Your task to perform on an android device: Open location settings Image 0: 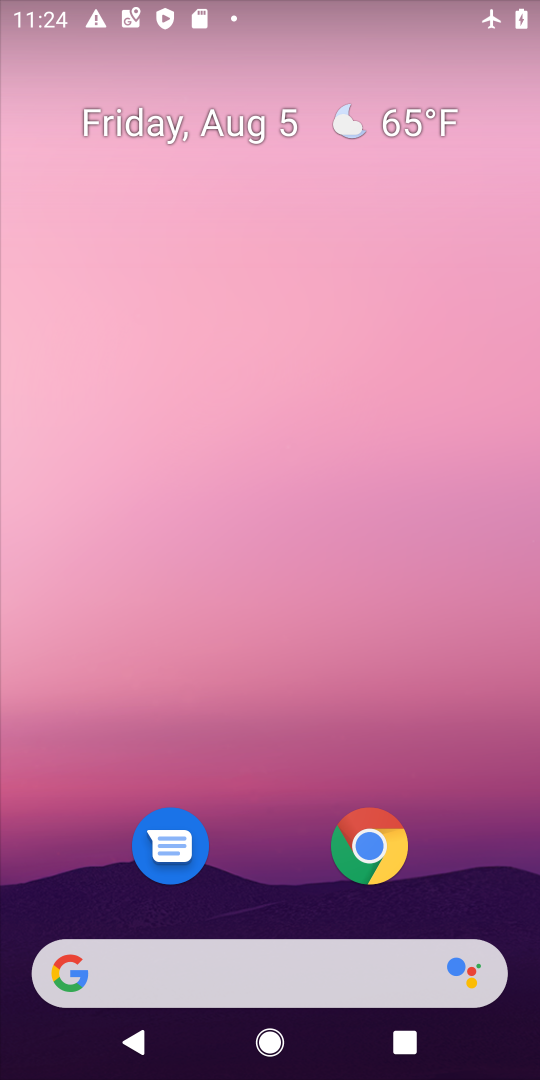
Step 0: drag from (297, 653) to (230, 1)
Your task to perform on an android device: Open location settings Image 1: 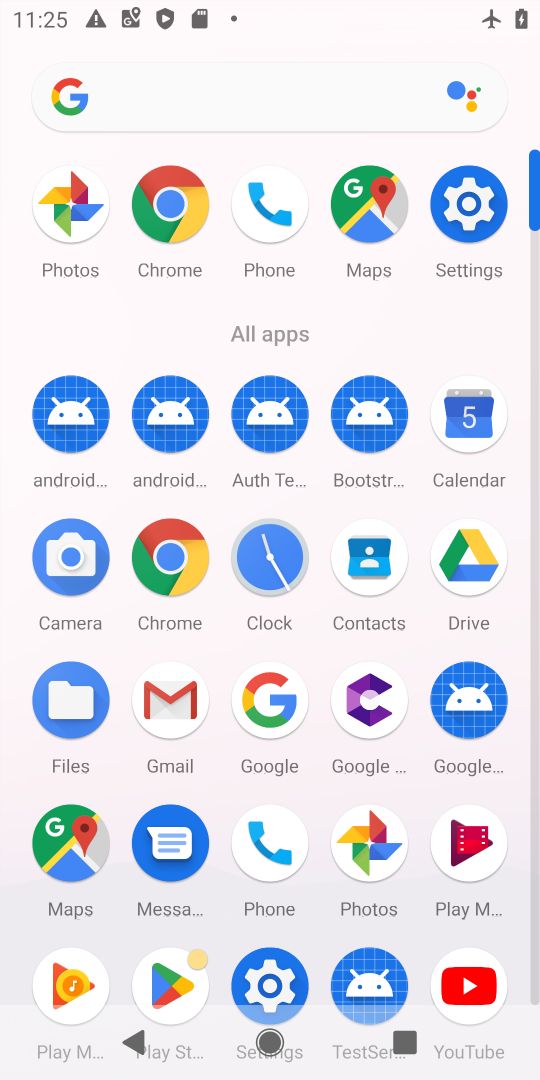
Step 1: click (468, 199)
Your task to perform on an android device: Open location settings Image 2: 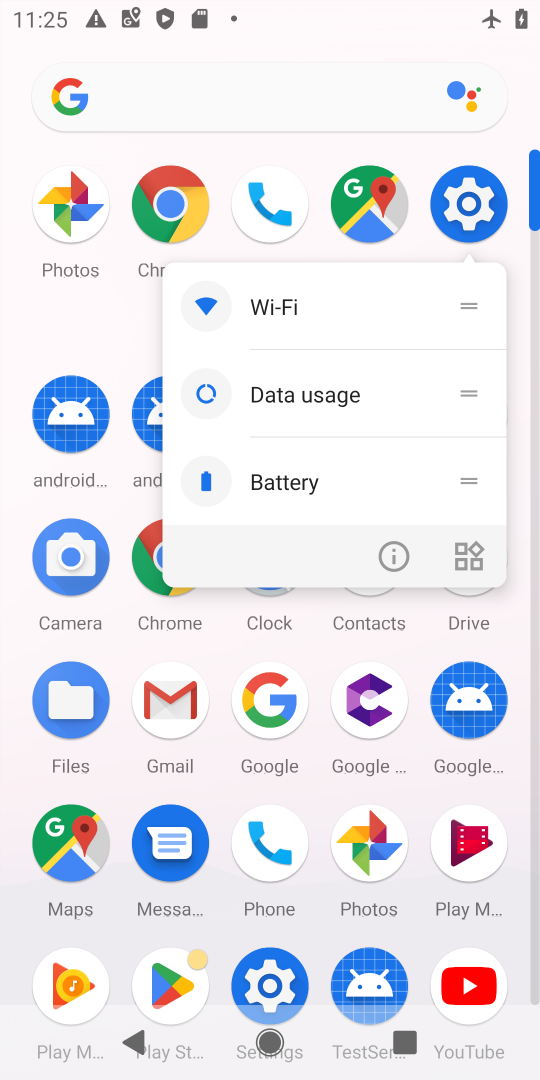
Step 2: click (470, 200)
Your task to perform on an android device: Open location settings Image 3: 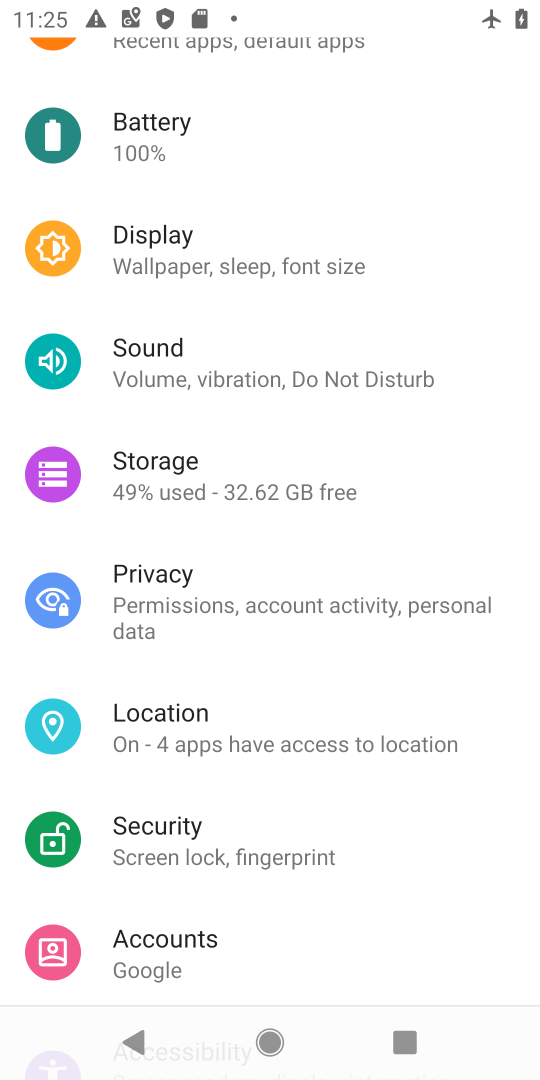
Step 3: click (262, 715)
Your task to perform on an android device: Open location settings Image 4: 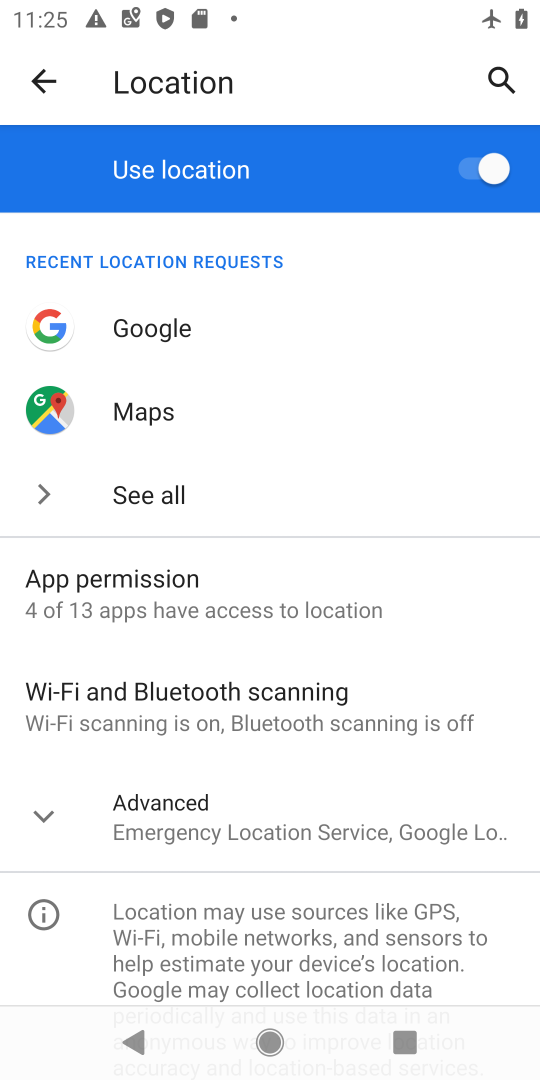
Step 4: task complete